Your task to perform on an android device: Go to calendar. Show me events next week Image 0: 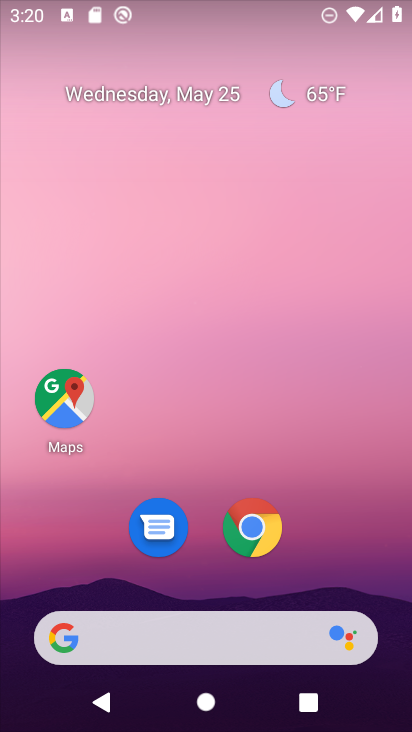
Step 0: drag from (286, 618) to (287, 24)
Your task to perform on an android device: Go to calendar. Show me events next week Image 1: 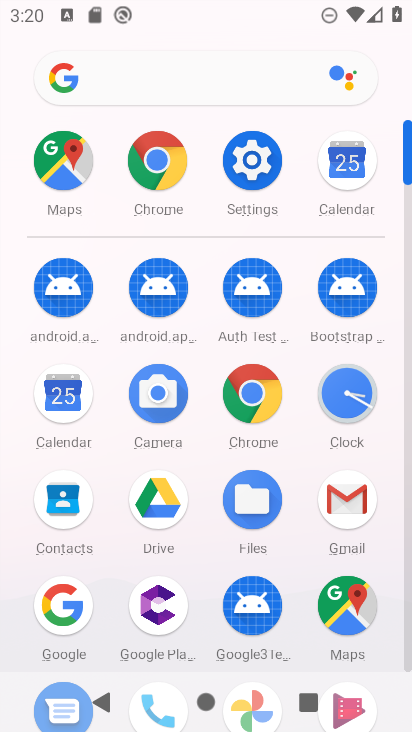
Step 1: click (73, 403)
Your task to perform on an android device: Go to calendar. Show me events next week Image 2: 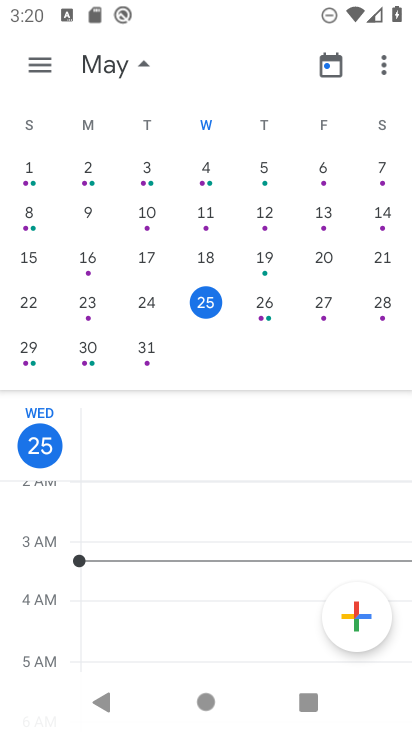
Step 2: click (148, 60)
Your task to perform on an android device: Go to calendar. Show me events next week Image 3: 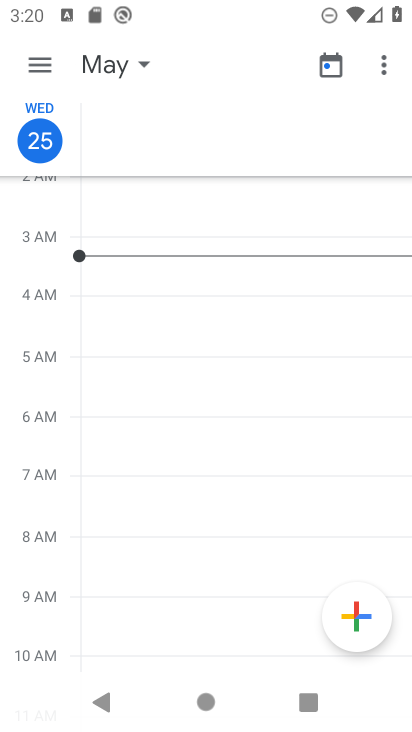
Step 3: click (148, 60)
Your task to perform on an android device: Go to calendar. Show me events next week Image 4: 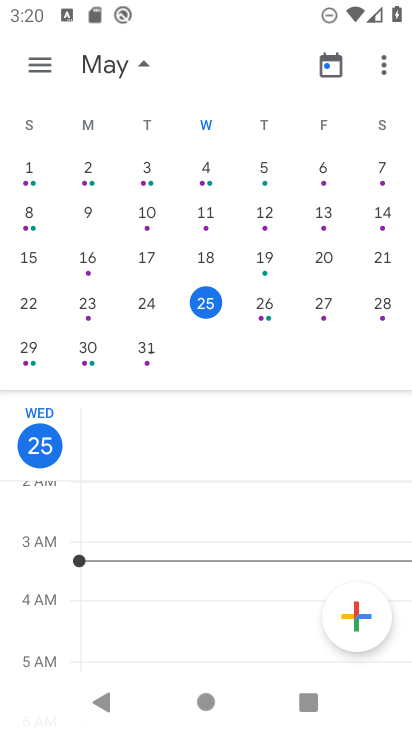
Step 4: click (94, 347)
Your task to perform on an android device: Go to calendar. Show me events next week Image 5: 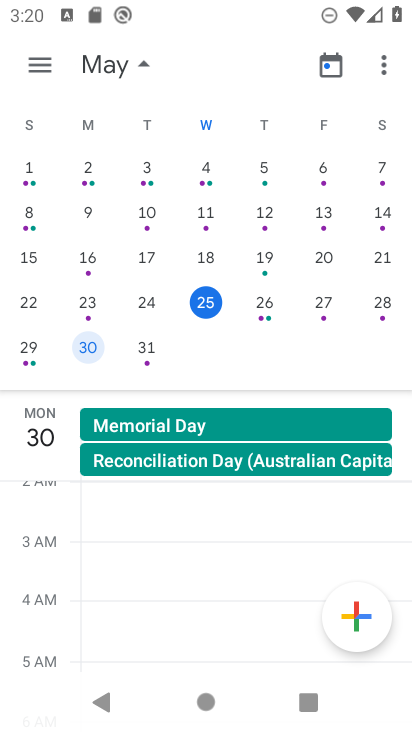
Step 5: click (43, 64)
Your task to perform on an android device: Go to calendar. Show me events next week Image 6: 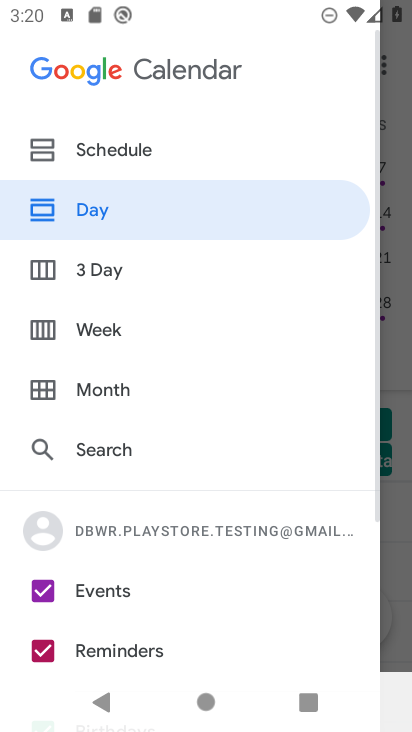
Step 6: click (109, 330)
Your task to perform on an android device: Go to calendar. Show me events next week Image 7: 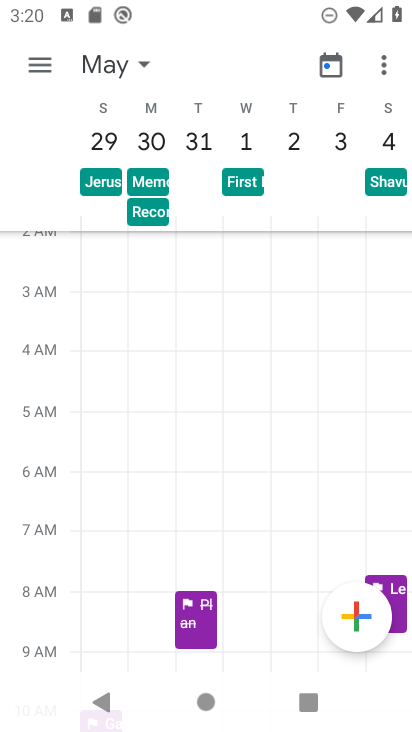
Step 7: task complete